Your task to perform on an android device: uninstall "Airtel Thanks" Image 0: 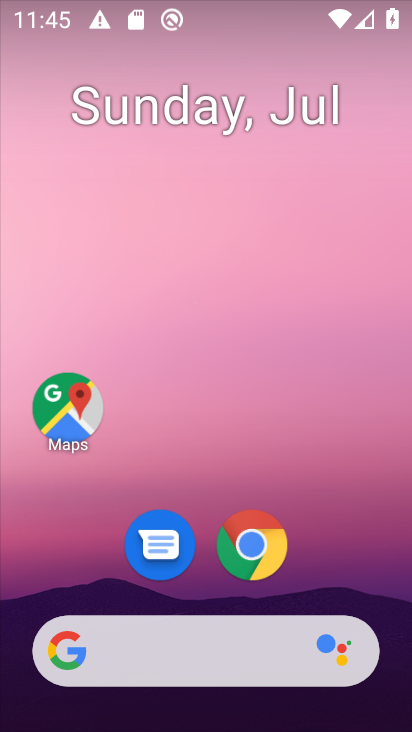
Step 0: drag from (209, 600) to (248, 323)
Your task to perform on an android device: uninstall "Airtel Thanks" Image 1: 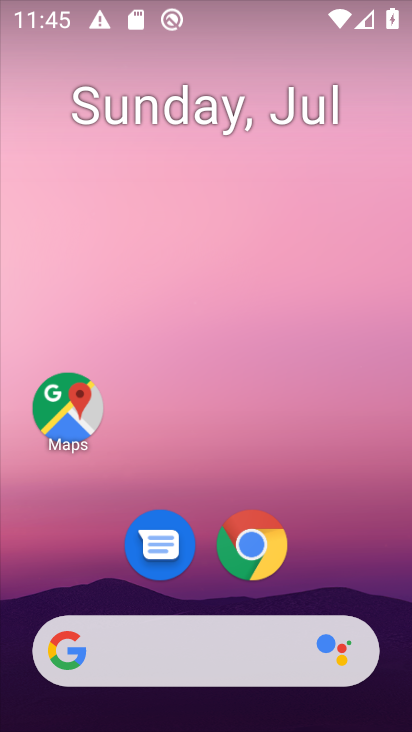
Step 1: drag from (236, 588) to (242, 14)
Your task to perform on an android device: uninstall "Airtel Thanks" Image 2: 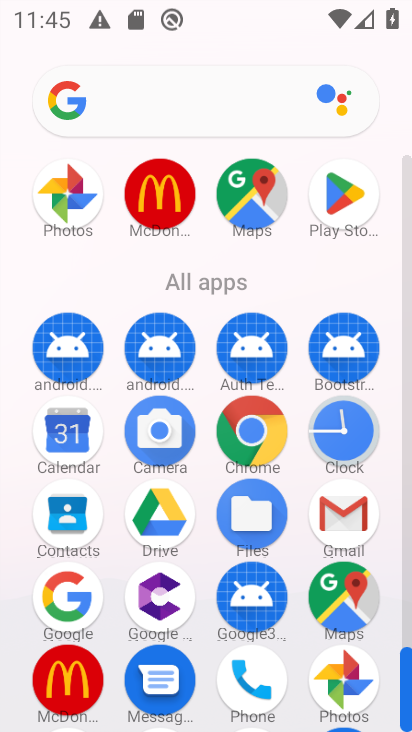
Step 2: click (329, 204)
Your task to perform on an android device: uninstall "Airtel Thanks" Image 3: 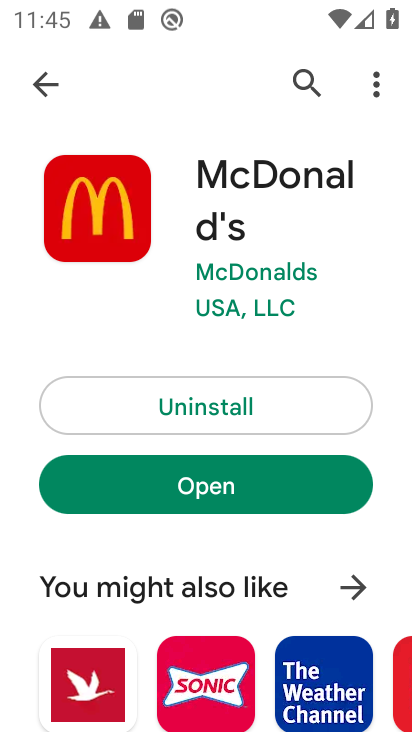
Step 3: click (29, 92)
Your task to perform on an android device: uninstall "Airtel Thanks" Image 4: 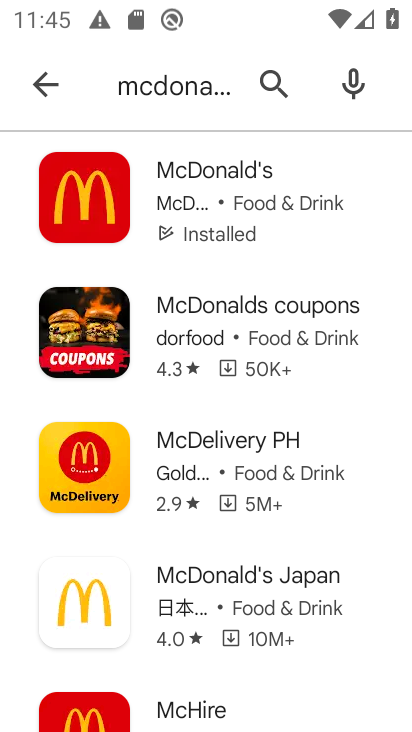
Step 4: click (269, 84)
Your task to perform on an android device: uninstall "Airtel Thanks" Image 5: 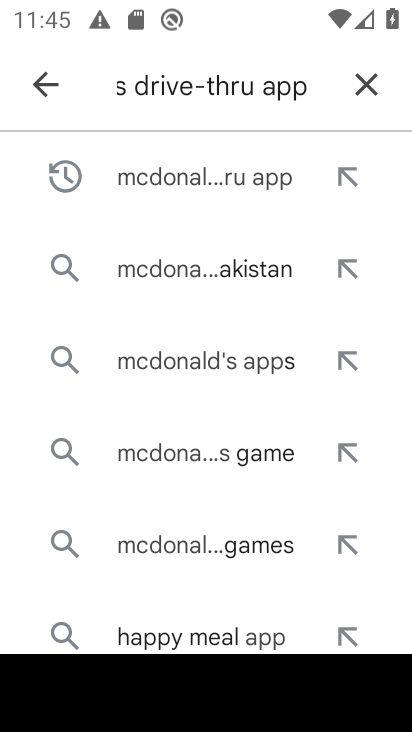
Step 5: click (355, 83)
Your task to perform on an android device: uninstall "Airtel Thanks" Image 6: 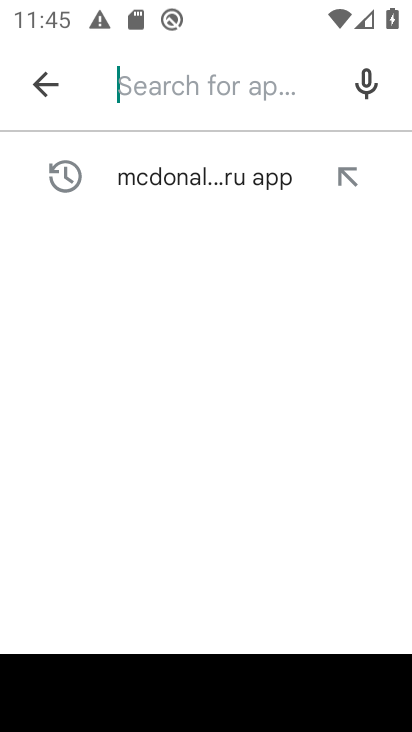
Step 6: type "Airtel Thanks"
Your task to perform on an android device: uninstall "Airtel Thanks" Image 7: 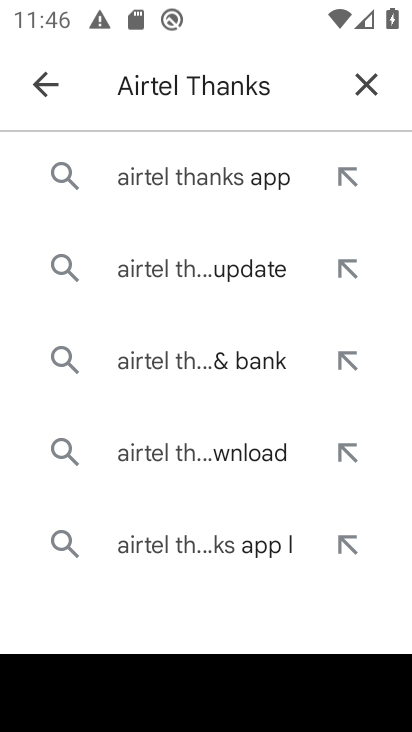
Step 7: click (212, 188)
Your task to perform on an android device: uninstall "Airtel Thanks" Image 8: 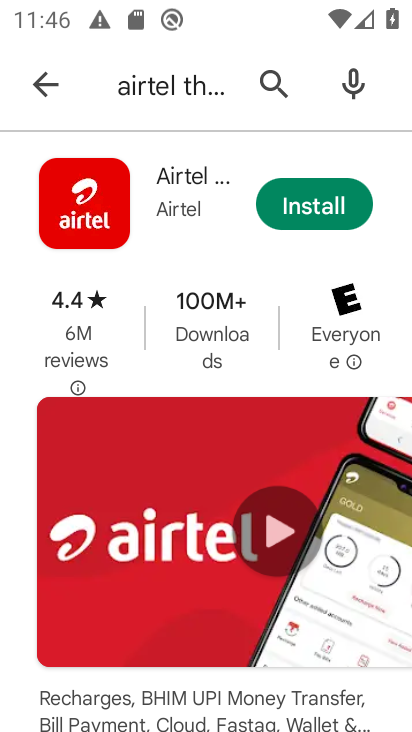
Step 8: task complete